Your task to perform on an android device: open a bookmark in the chrome app Image 0: 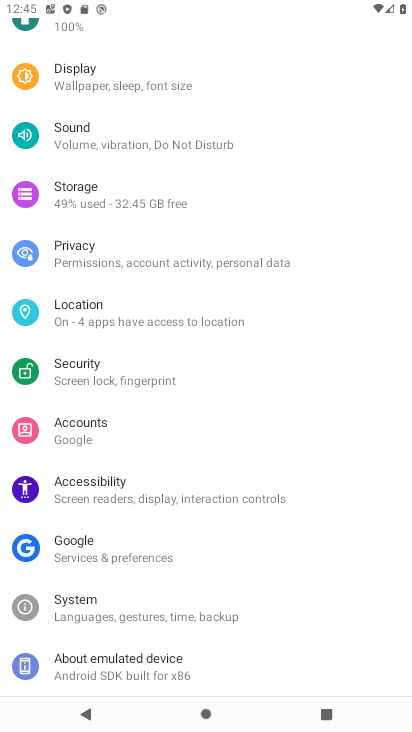
Step 0: press home button
Your task to perform on an android device: open a bookmark in the chrome app Image 1: 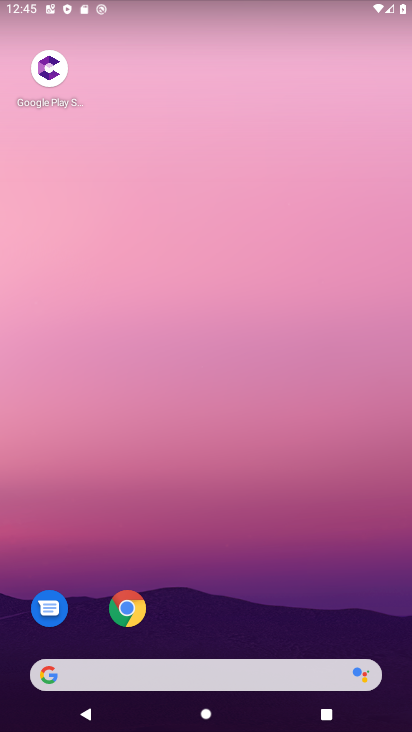
Step 1: click (128, 604)
Your task to perform on an android device: open a bookmark in the chrome app Image 2: 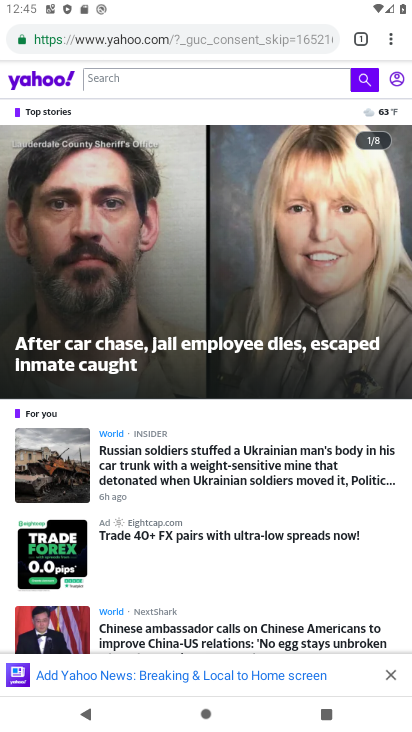
Step 2: click (388, 43)
Your task to perform on an android device: open a bookmark in the chrome app Image 3: 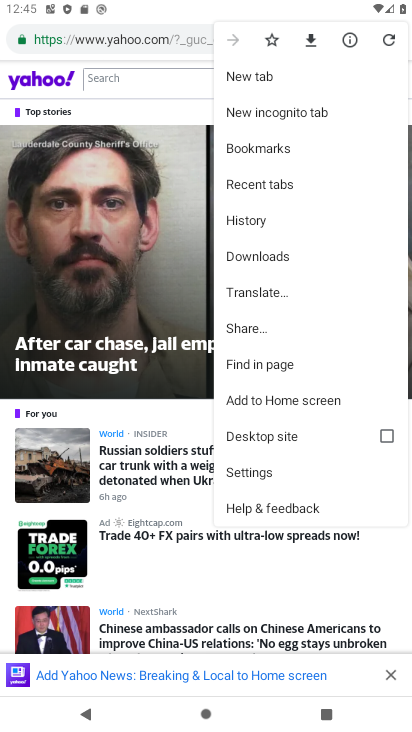
Step 3: click (273, 150)
Your task to perform on an android device: open a bookmark in the chrome app Image 4: 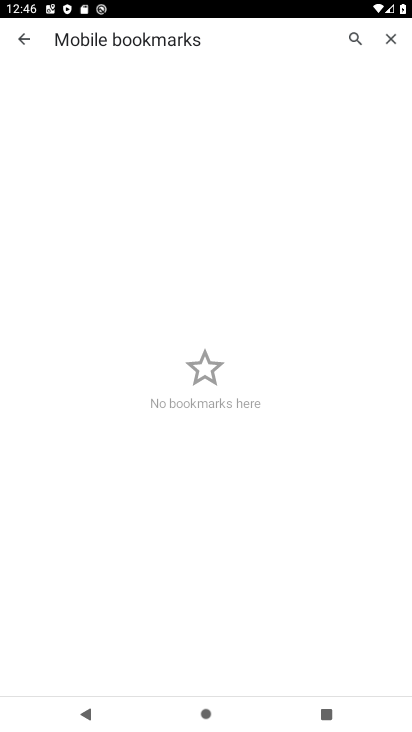
Step 4: task complete